Your task to perform on an android device: delete location history Image 0: 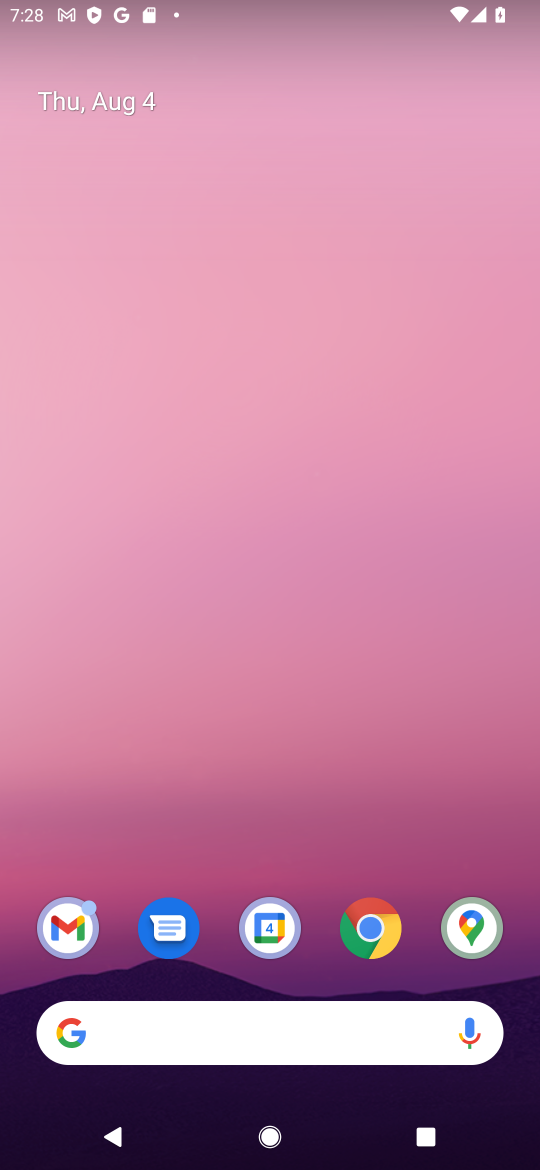
Step 0: drag from (225, 978) to (245, 50)
Your task to perform on an android device: delete location history Image 1: 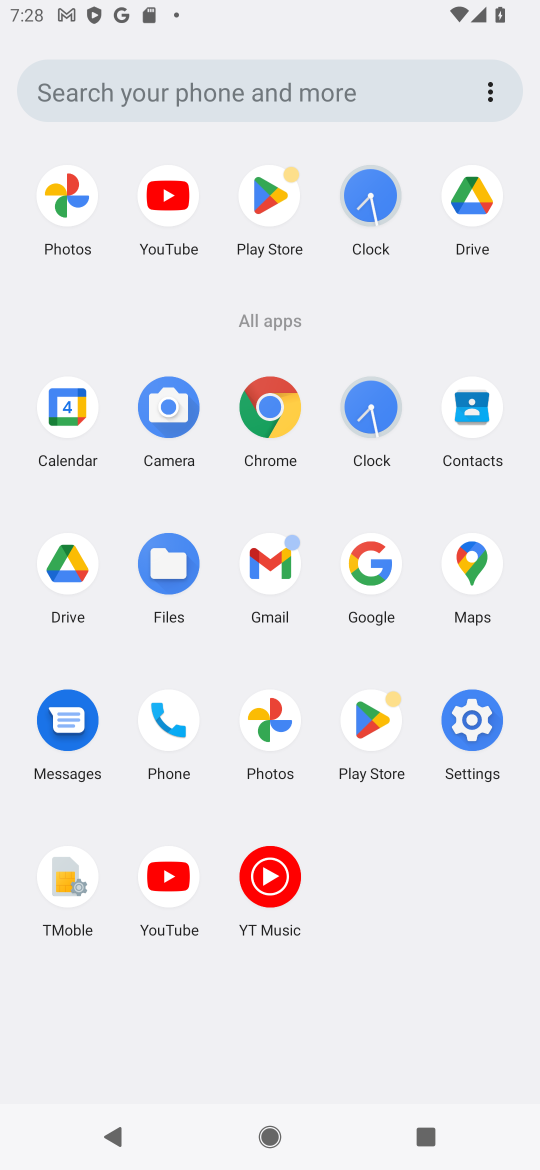
Step 1: click (477, 564)
Your task to perform on an android device: delete location history Image 2: 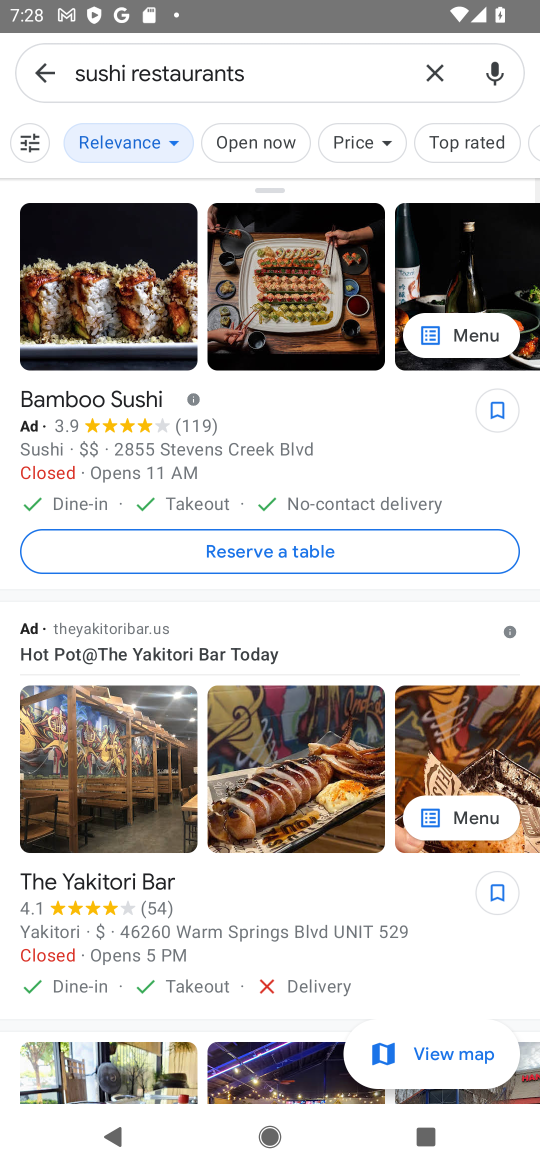
Step 2: click (40, 66)
Your task to perform on an android device: delete location history Image 3: 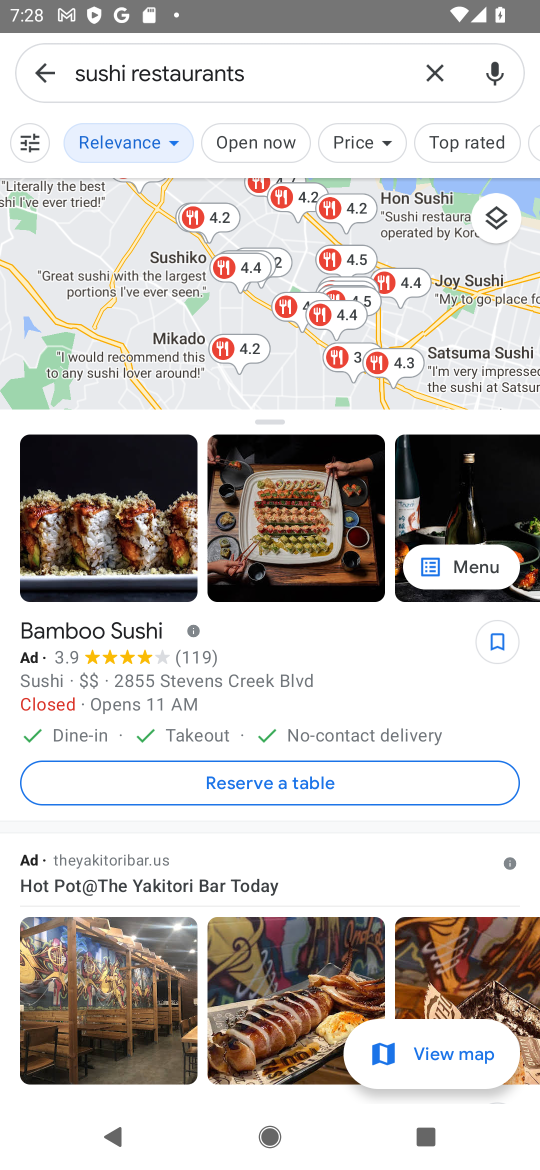
Step 3: click (36, 75)
Your task to perform on an android device: delete location history Image 4: 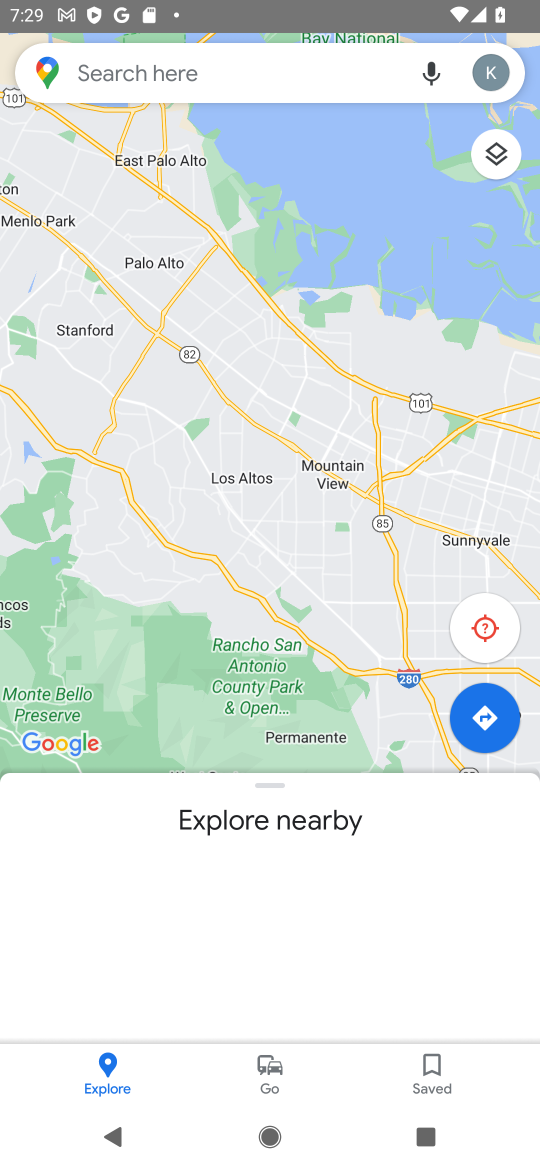
Step 4: click (491, 71)
Your task to perform on an android device: delete location history Image 5: 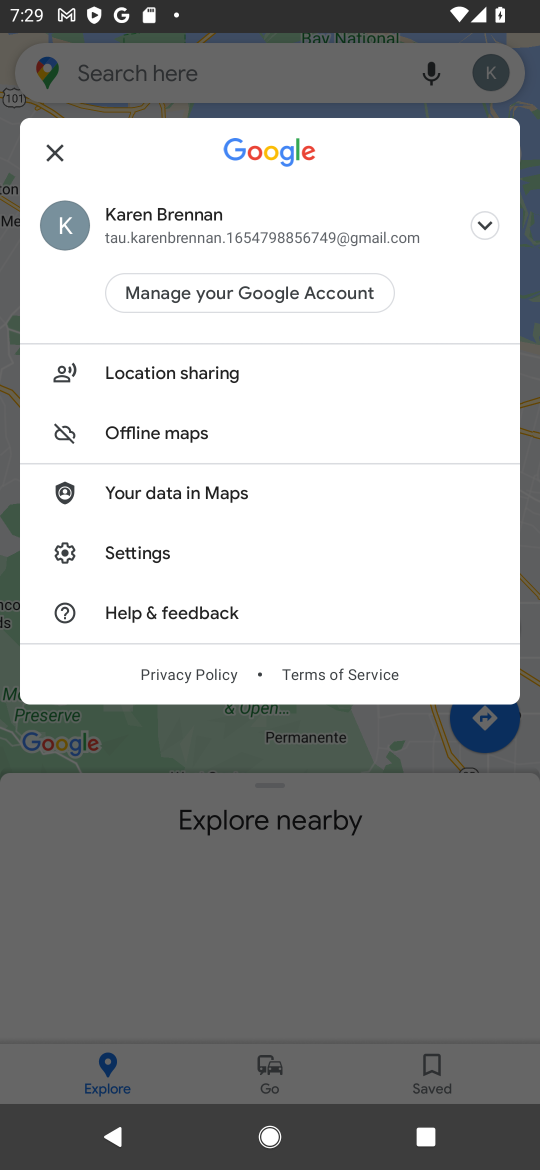
Step 5: click (159, 568)
Your task to perform on an android device: delete location history Image 6: 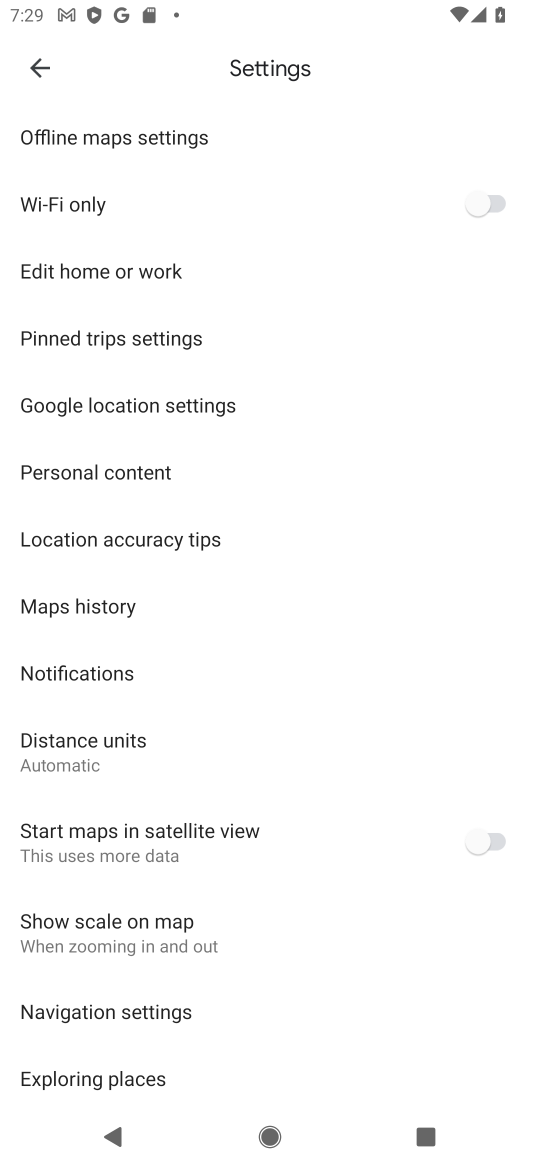
Step 6: click (195, 407)
Your task to perform on an android device: delete location history Image 7: 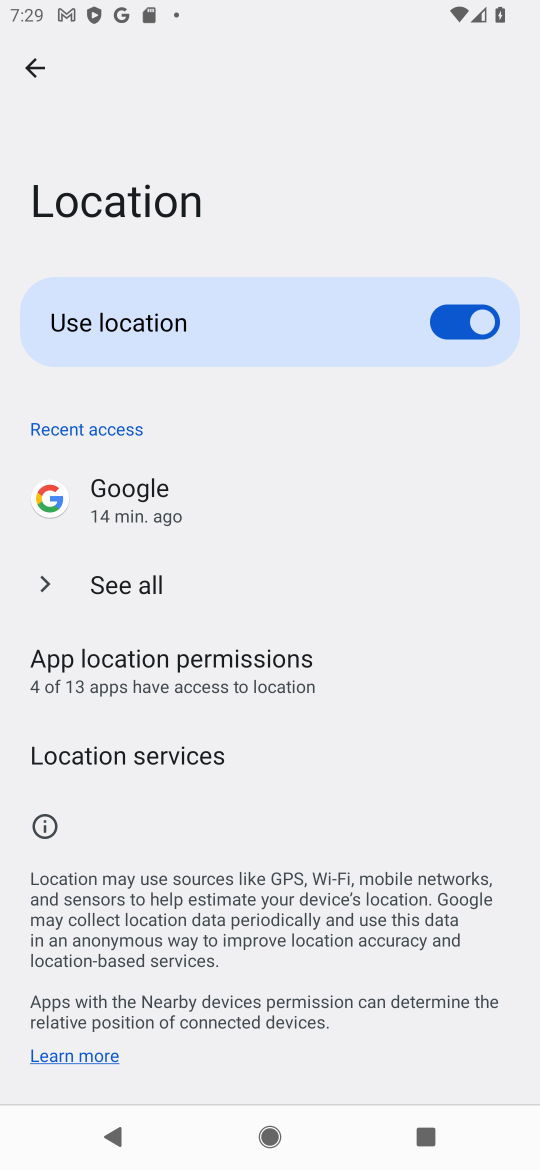
Step 7: task complete